Your task to perform on an android device: change notification settings in the gmail app Image 0: 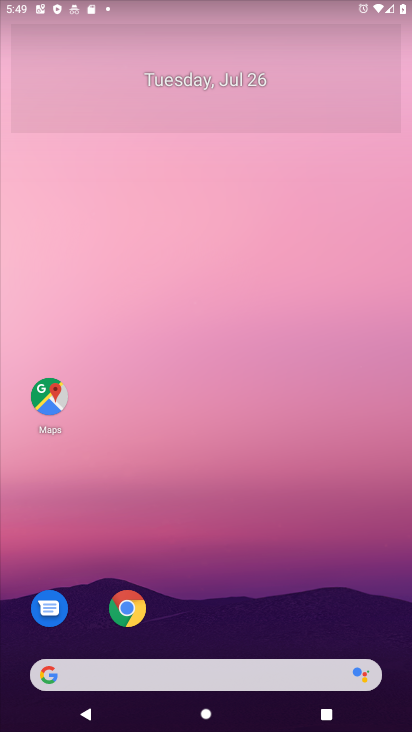
Step 0: press home button
Your task to perform on an android device: change notification settings in the gmail app Image 1: 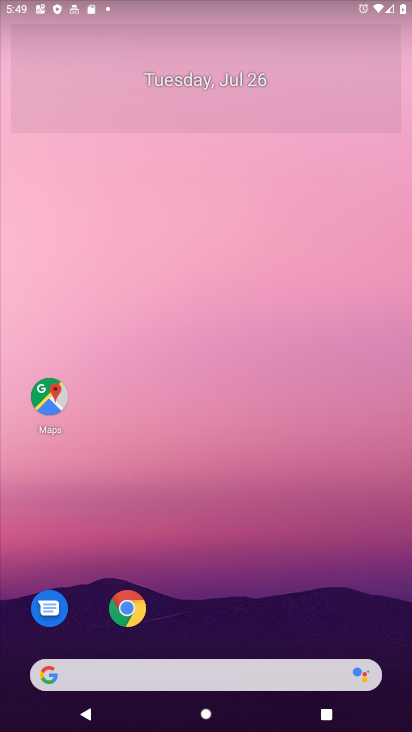
Step 1: drag from (236, 626) to (159, 0)
Your task to perform on an android device: change notification settings in the gmail app Image 2: 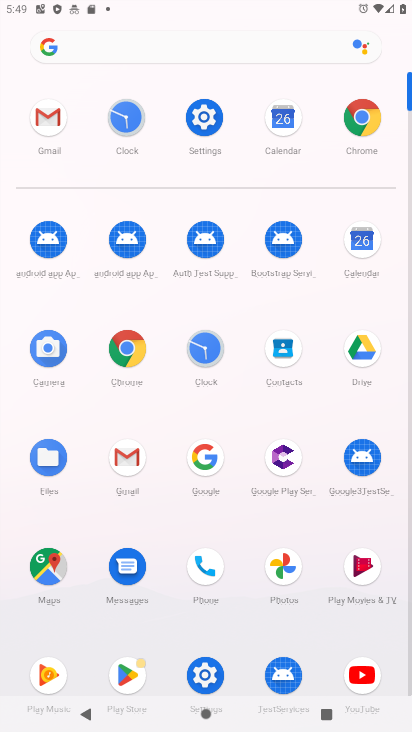
Step 2: click (48, 116)
Your task to perform on an android device: change notification settings in the gmail app Image 3: 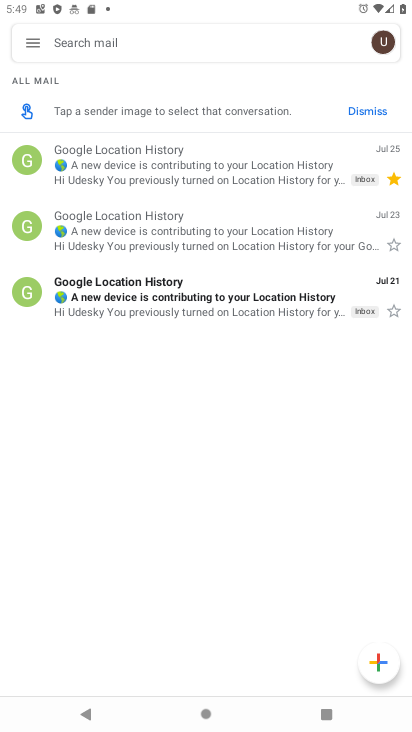
Step 3: click (25, 44)
Your task to perform on an android device: change notification settings in the gmail app Image 4: 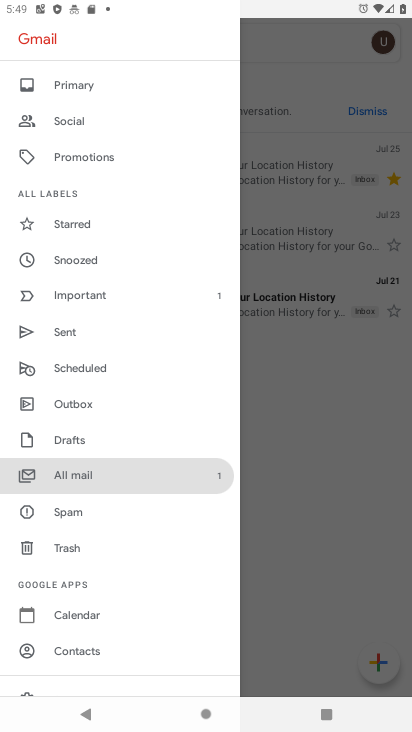
Step 4: drag from (149, 618) to (95, 391)
Your task to perform on an android device: change notification settings in the gmail app Image 5: 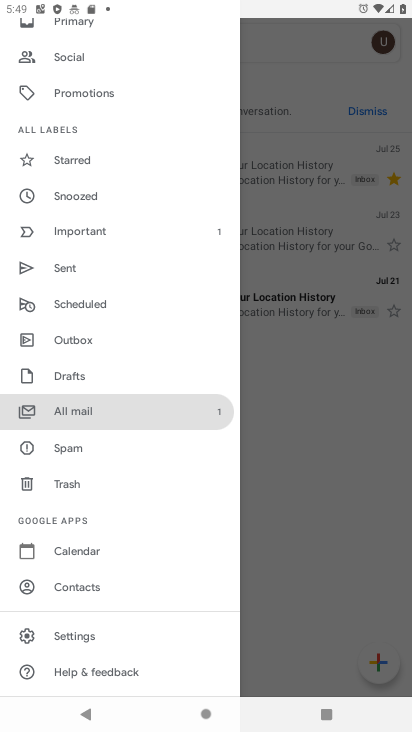
Step 5: click (72, 638)
Your task to perform on an android device: change notification settings in the gmail app Image 6: 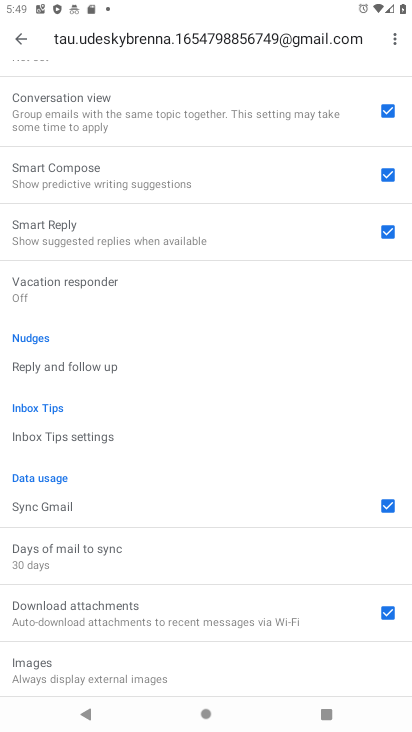
Step 6: drag from (227, 84) to (278, 723)
Your task to perform on an android device: change notification settings in the gmail app Image 7: 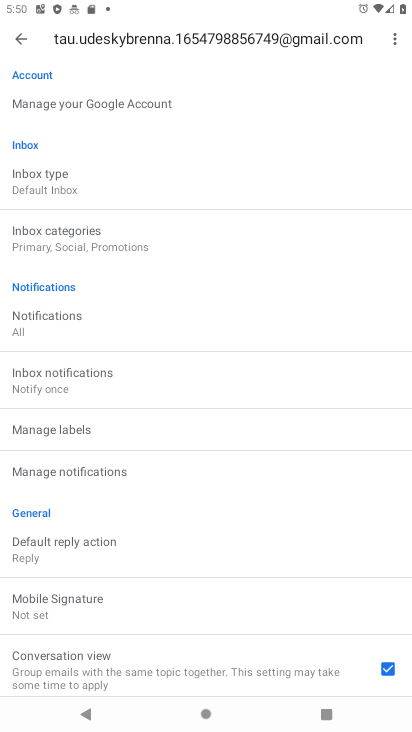
Step 7: click (90, 476)
Your task to perform on an android device: change notification settings in the gmail app Image 8: 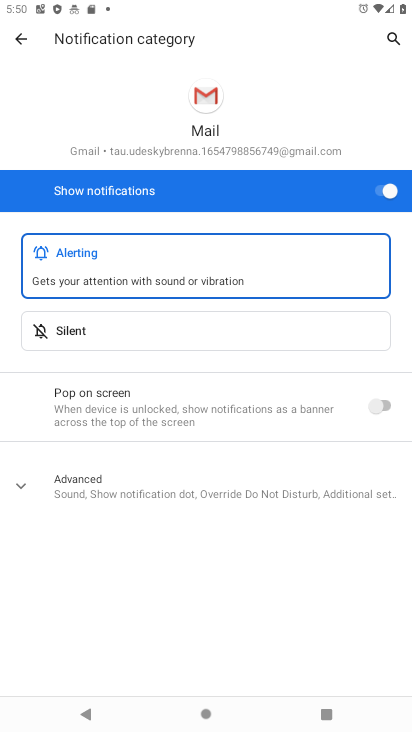
Step 8: click (392, 199)
Your task to perform on an android device: change notification settings in the gmail app Image 9: 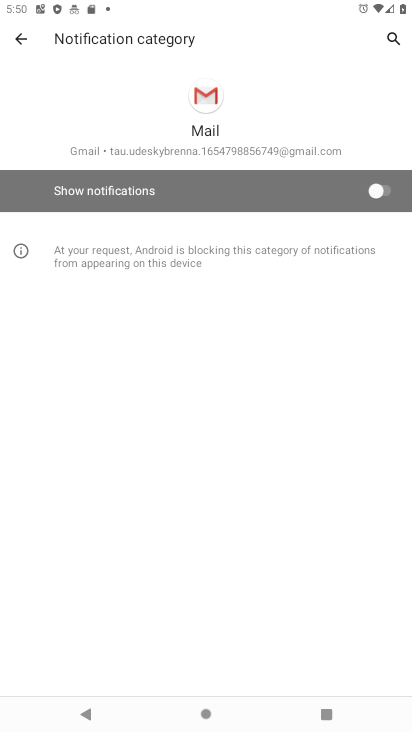
Step 9: task complete